Your task to perform on an android device: Open ESPN.com Image 0: 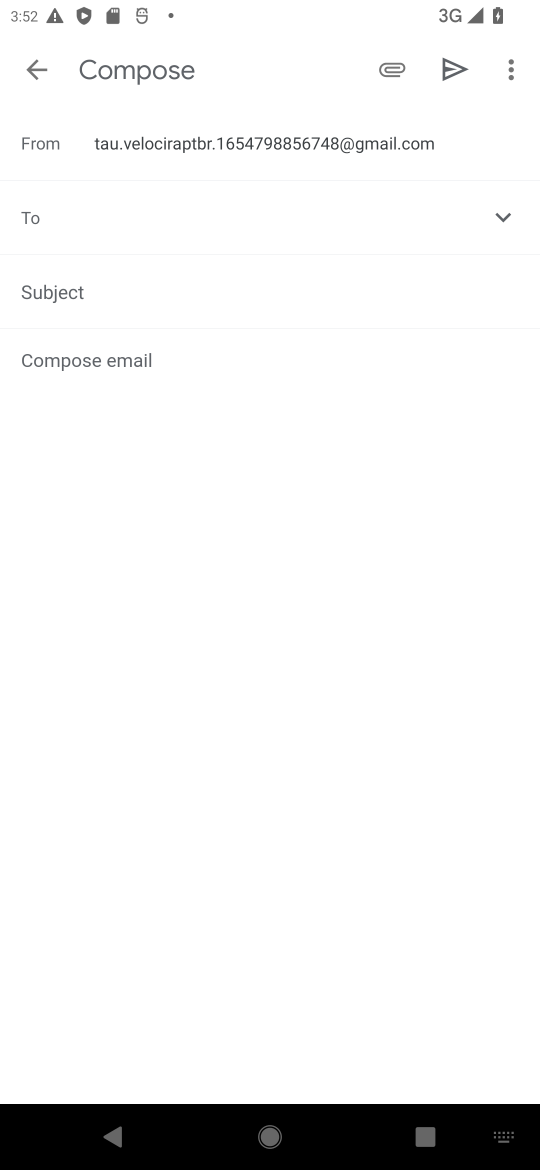
Step 0: press home button
Your task to perform on an android device: Open ESPN.com Image 1: 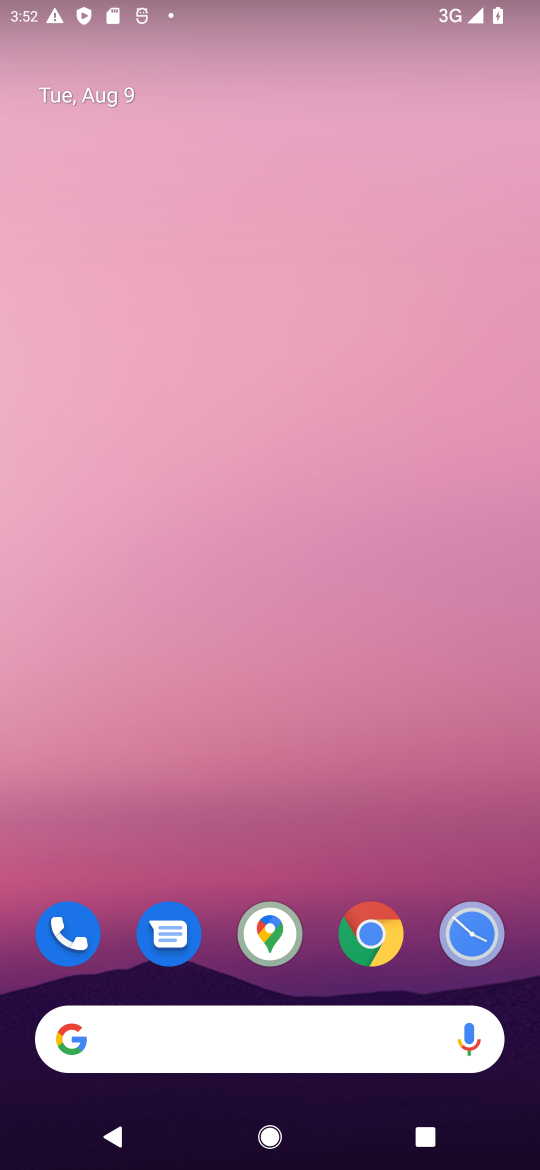
Step 1: click (348, 1029)
Your task to perform on an android device: Open ESPN.com Image 2: 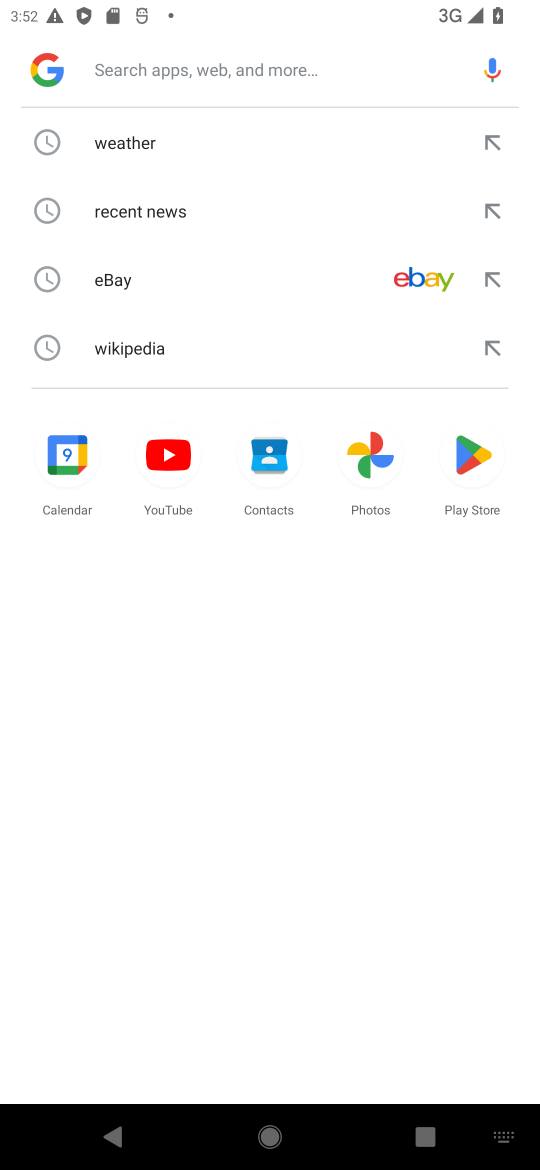
Step 2: type "eespn.com"
Your task to perform on an android device: Open ESPN.com Image 3: 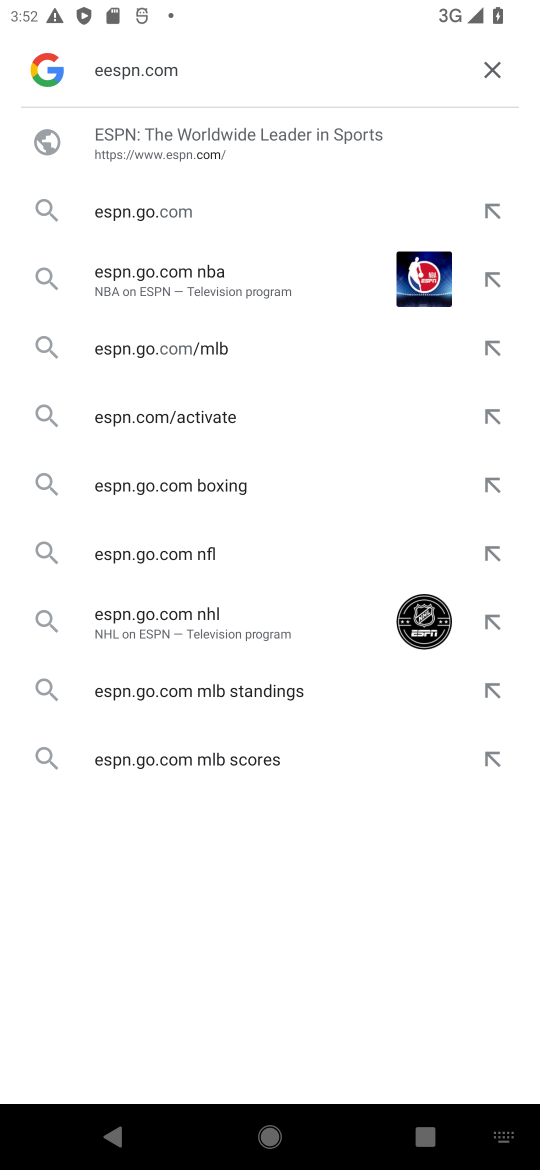
Step 3: click (232, 124)
Your task to perform on an android device: Open ESPN.com Image 4: 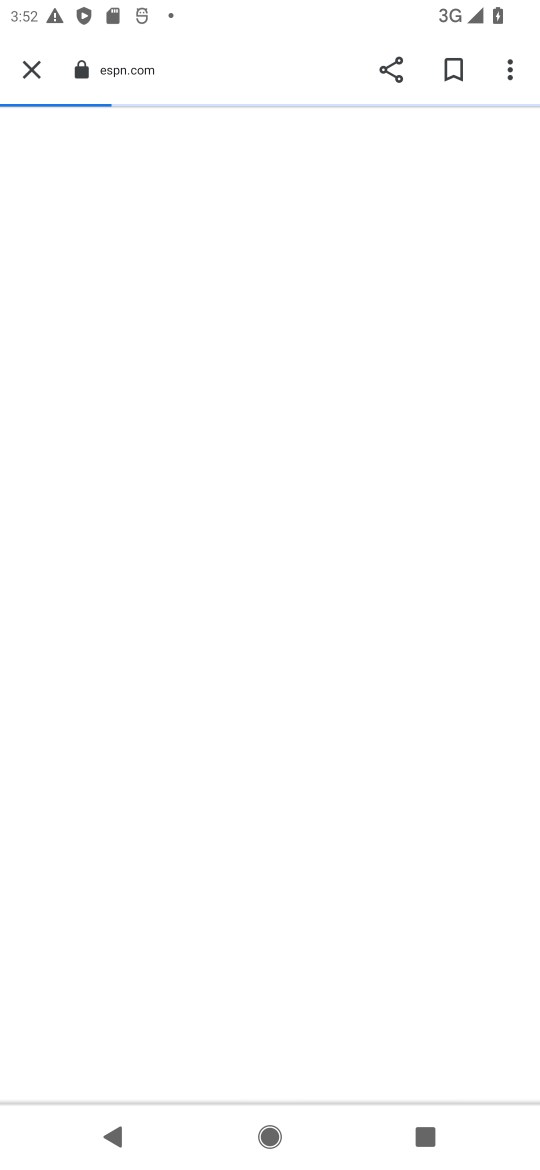
Step 4: task complete